Your task to perform on an android device: turn off notifications settings in the gmail app Image 0: 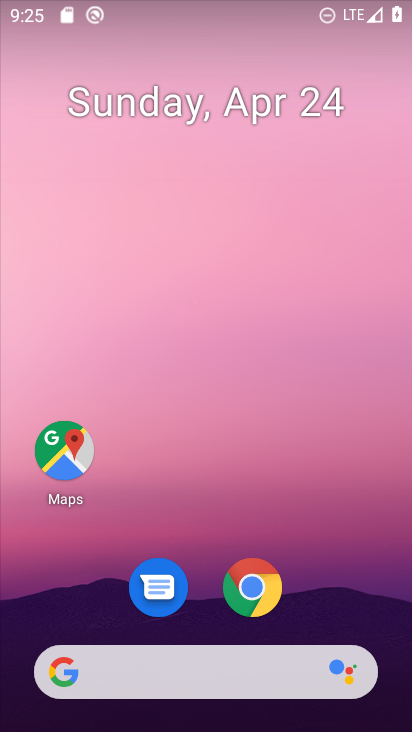
Step 0: drag from (348, 577) to (351, 129)
Your task to perform on an android device: turn off notifications settings in the gmail app Image 1: 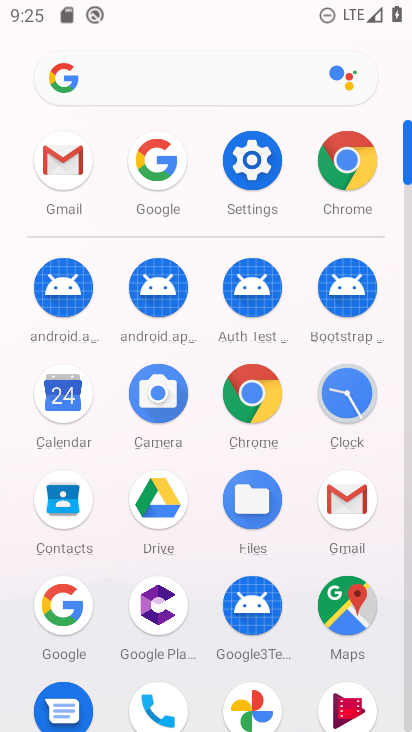
Step 1: click (329, 517)
Your task to perform on an android device: turn off notifications settings in the gmail app Image 2: 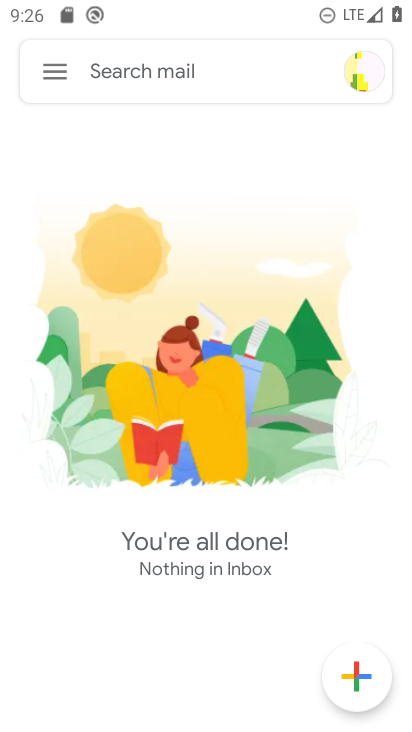
Step 2: click (51, 74)
Your task to perform on an android device: turn off notifications settings in the gmail app Image 3: 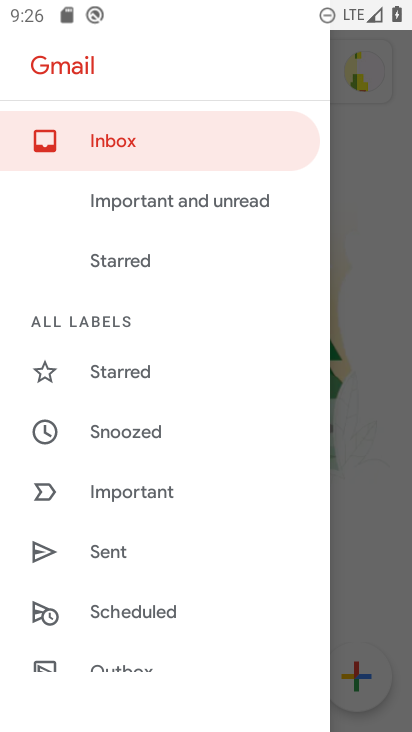
Step 3: drag from (100, 651) to (192, 252)
Your task to perform on an android device: turn off notifications settings in the gmail app Image 4: 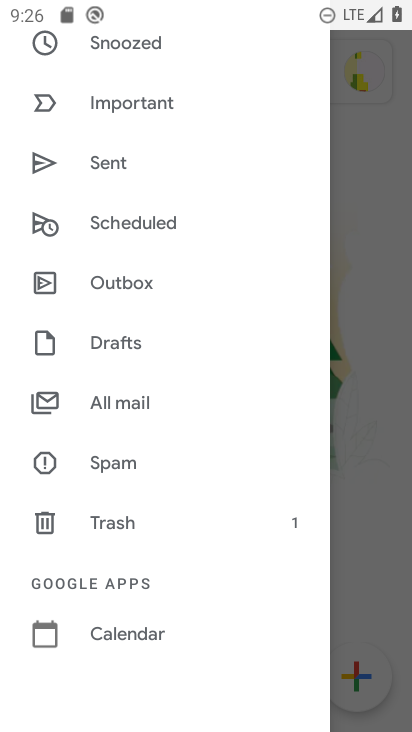
Step 4: drag from (185, 536) to (243, 201)
Your task to perform on an android device: turn off notifications settings in the gmail app Image 5: 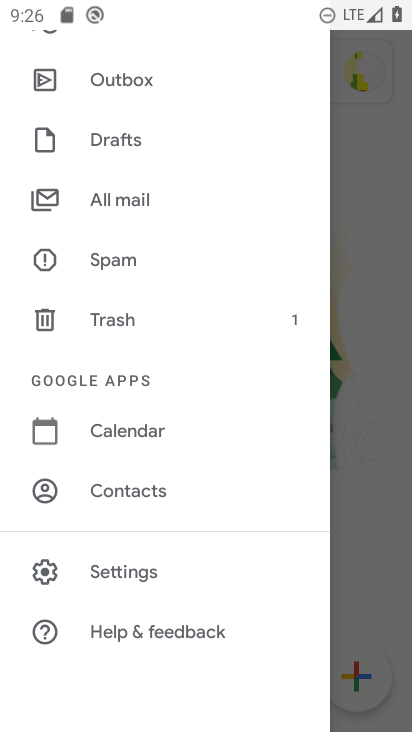
Step 5: click (127, 575)
Your task to perform on an android device: turn off notifications settings in the gmail app Image 6: 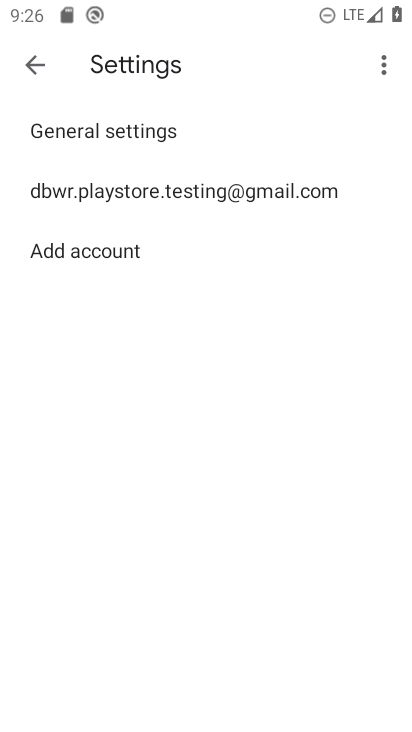
Step 6: click (184, 186)
Your task to perform on an android device: turn off notifications settings in the gmail app Image 7: 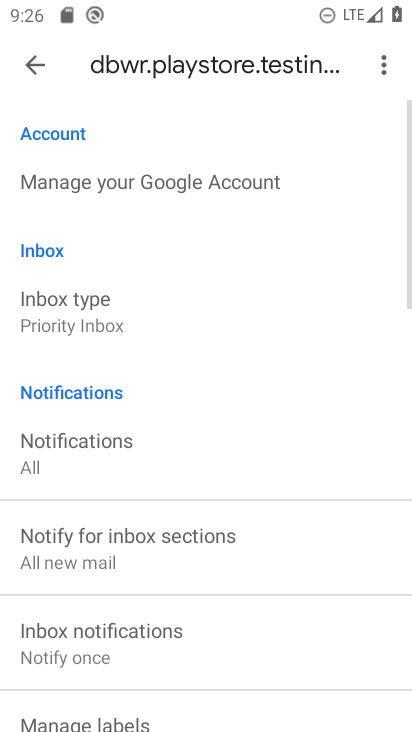
Step 7: drag from (201, 562) to (229, 302)
Your task to perform on an android device: turn off notifications settings in the gmail app Image 8: 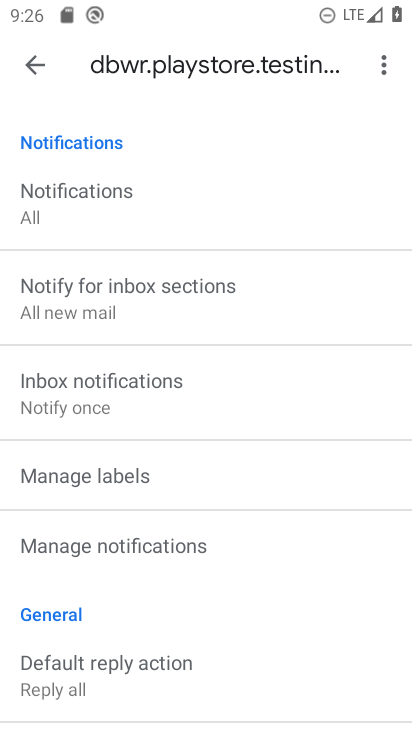
Step 8: click (105, 208)
Your task to perform on an android device: turn off notifications settings in the gmail app Image 9: 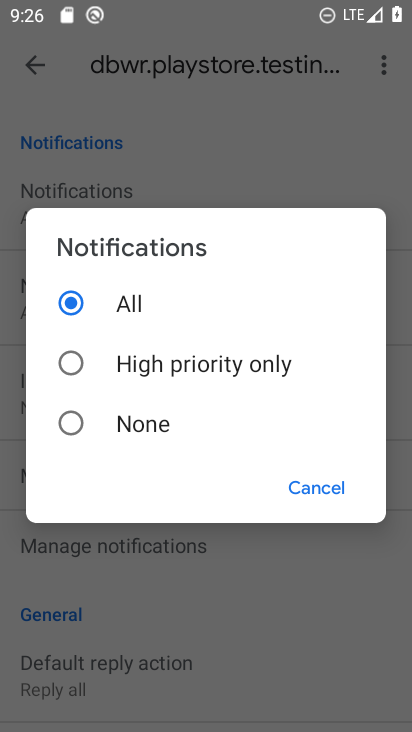
Step 9: click (67, 417)
Your task to perform on an android device: turn off notifications settings in the gmail app Image 10: 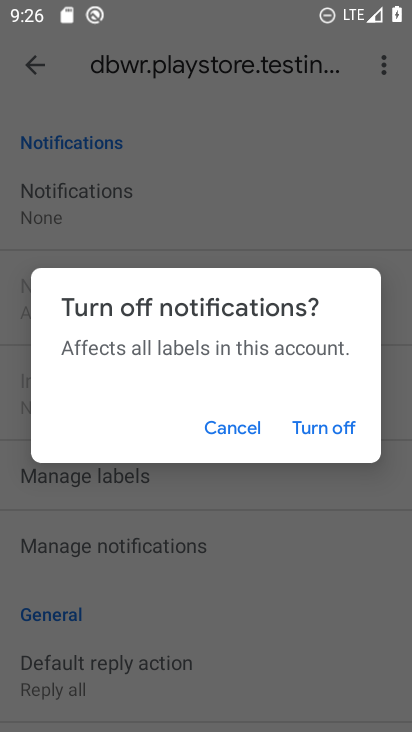
Step 10: click (308, 427)
Your task to perform on an android device: turn off notifications settings in the gmail app Image 11: 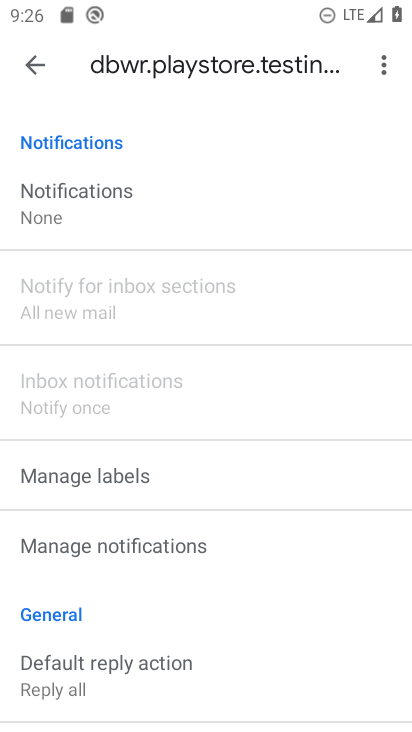
Step 11: task complete